Your task to perform on an android device: Open calendar and show me the second week of next month Image 0: 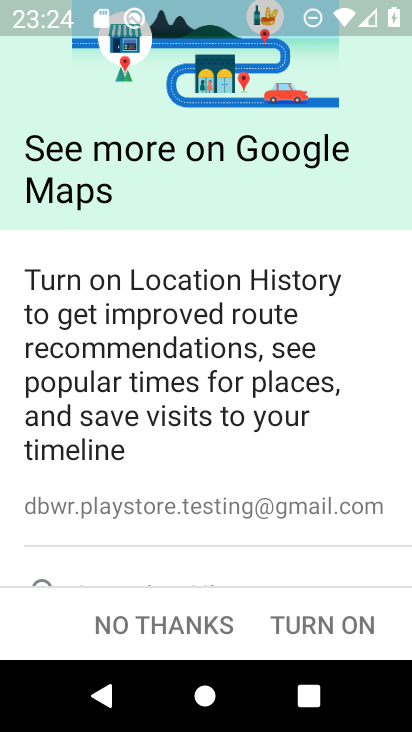
Step 0: press home button
Your task to perform on an android device: Open calendar and show me the second week of next month Image 1: 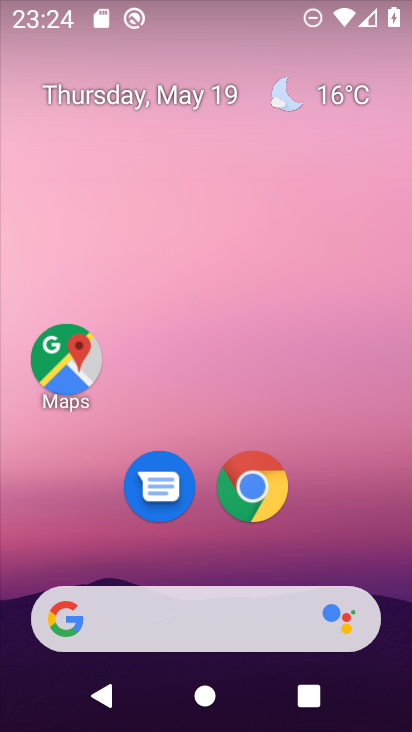
Step 1: drag from (389, 538) to (239, 113)
Your task to perform on an android device: Open calendar and show me the second week of next month Image 2: 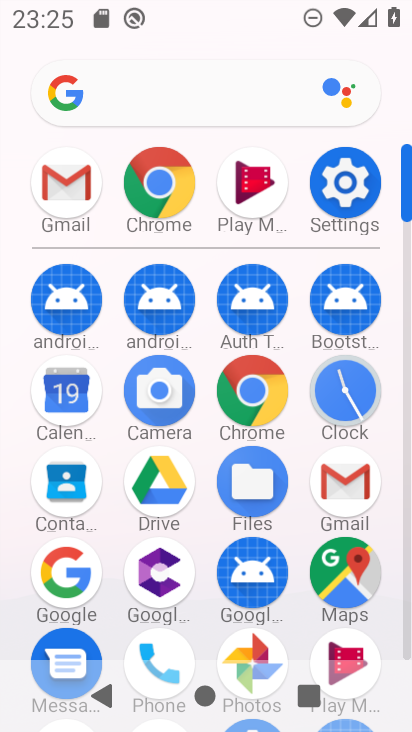
Step 2: click (91, 406)
Your task to perform on an android device: Open calendar and show me the second week of next month Image 3: 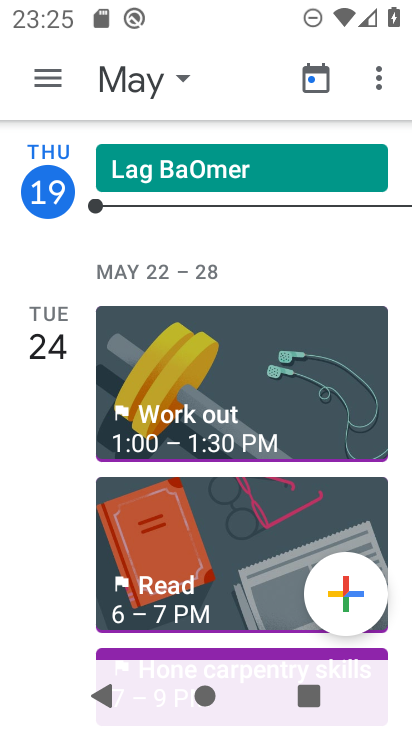
Step 3: click (117, 99)
Your task to perform on an android device: Open calendar and show me the second week of next month Image 4: 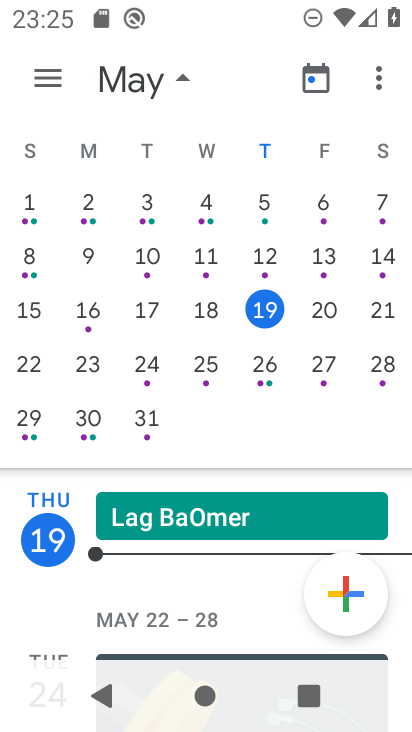
Step 4: drag from (374, 416) to (0, 348)
Your task to perform on an android device: Open calendar and show me the second week of next month Image 5: 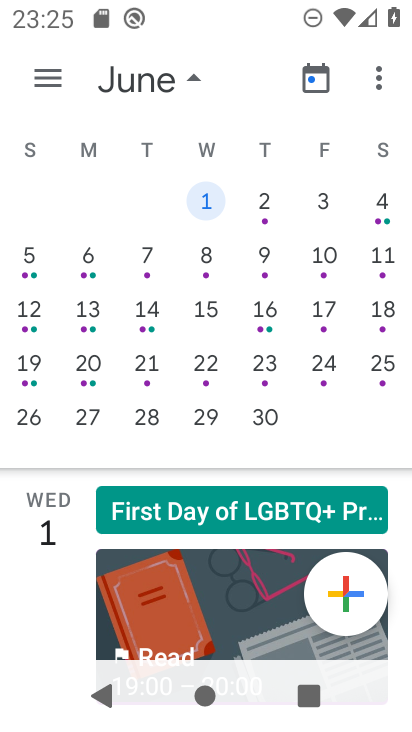
Step 5: click (160, 312)
Your task to perform on an android device: Open calendar and show me the second week of next month Image 6: 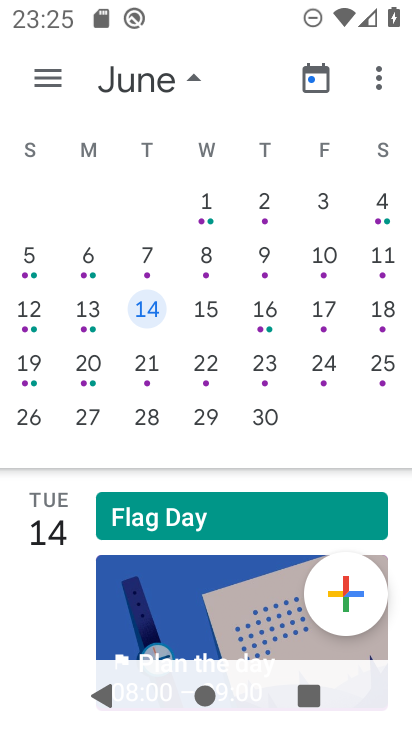
Step 6: task complete